Your task to perform on an android device: turn on data saver in the chrome app Image 0: 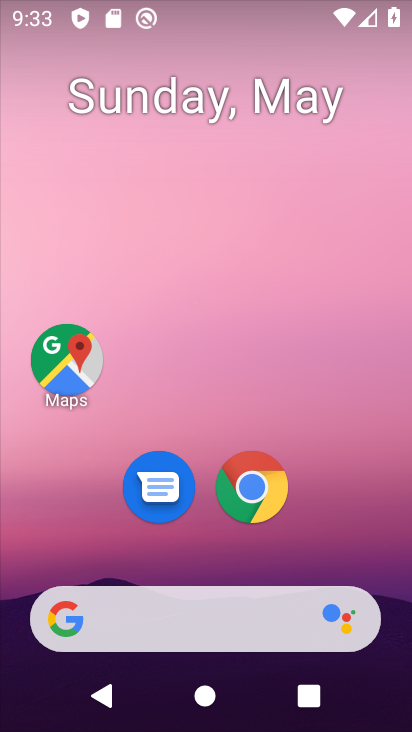
Step 0: drag from (394, 552) to (373, 121)
Your task to perform on an android device: turn on data saver in the chrome app Image 1: 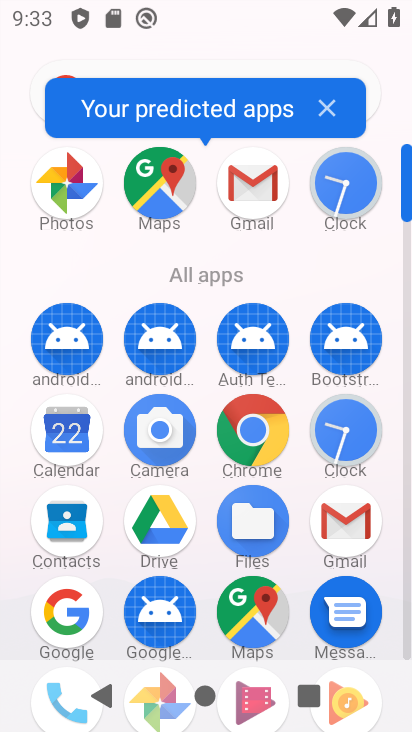
Step 1: click (262, 447)
Your task to perform on an android device: turn on data saver in the chrome app Image 2: 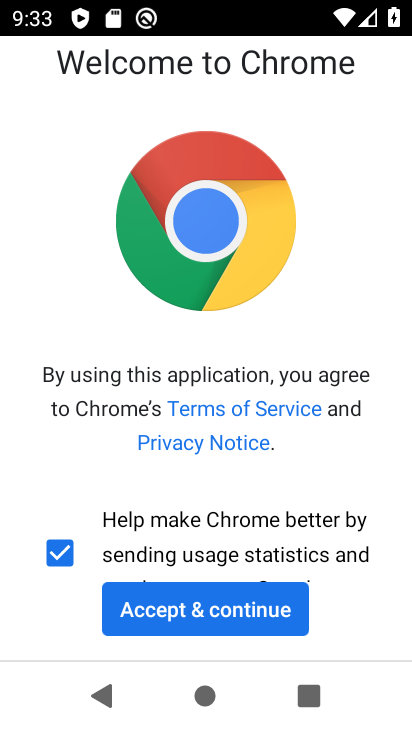
Step 2: click (245, 620)
Your task to perform on an android device: turn on data saver in the chrome app Image 3: 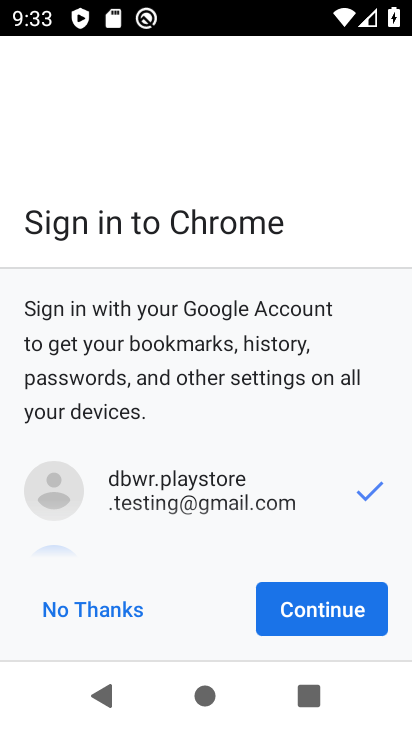
Step 3: click (321, 603)
Your task to perform on an android device: turn on data saver in the chrome app Image 4: 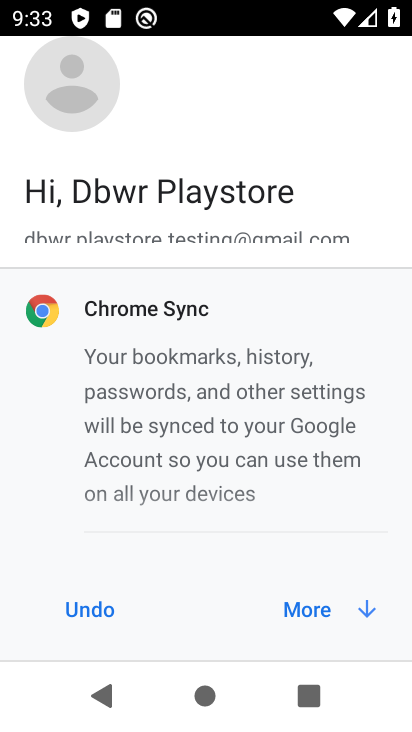
Step 4: click (321, 603)
Your task to perform on an android device: turn on data saver in the chrome app Image 5: 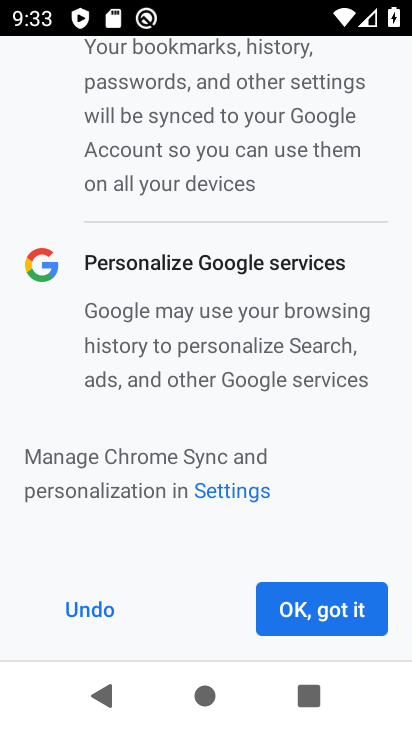
Step 5: click (313, 616)
Your task to perform on an android device: turn on data saver in the chrome app Image 6: 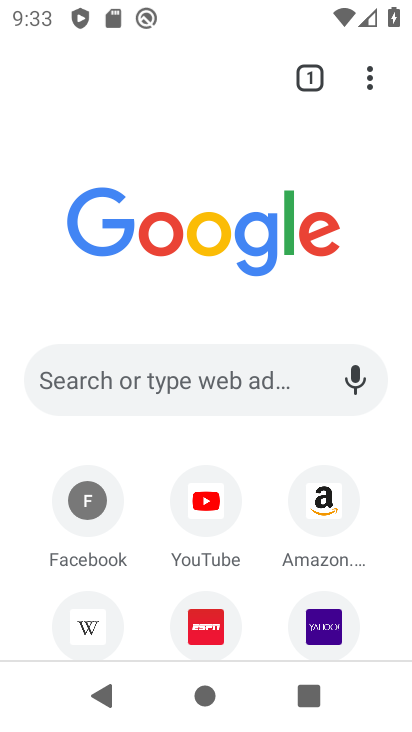
Step 6: click (371, 92)
Your task to perform on an android device: turn on data saver in the chrome app Image 7: 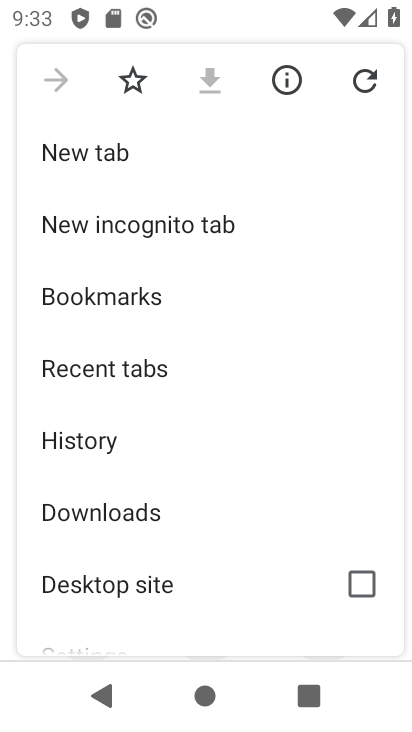
Step 7: drag from (265, 447) to (264, 375)
Your task to perform on an android device: turn on data saver in the chrome app Image 8: 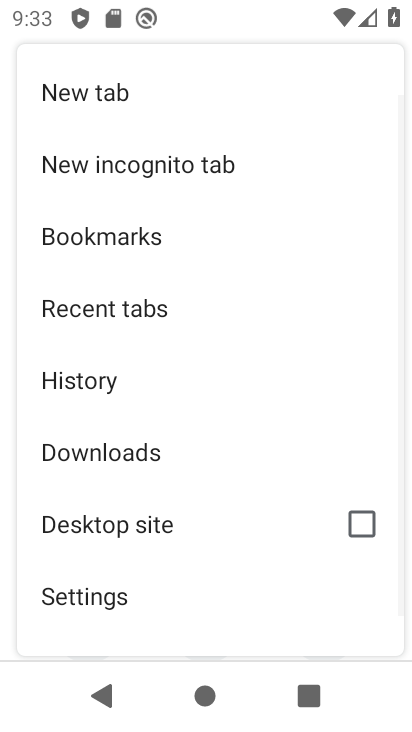
Step 8: drag from (284, 523) to (273, 402)
Your task to perform on an android device: turn on data saver in the chrome app Image 9: 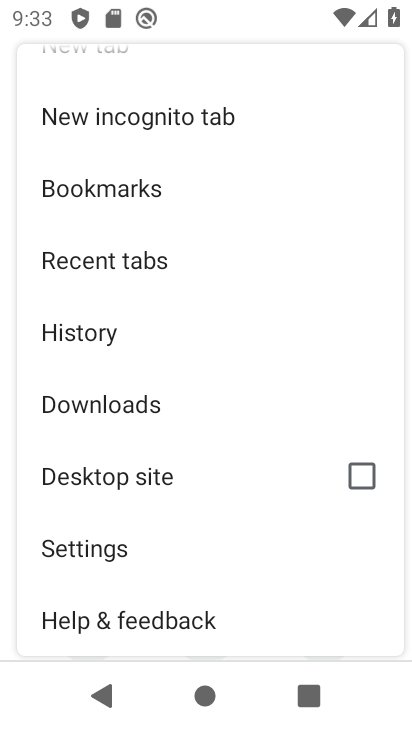
Step 9: click (186, 555)
Your task to perform on an android device: turn on data saver in the chrome app Image 10: 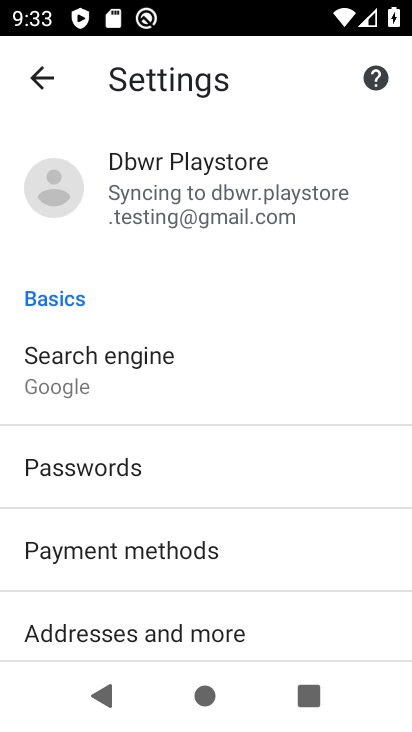
Step 10: drag from (257, 596) to (273, 494)
Your task to perform on an android device: turn on data saver in the chrome app Image 11: 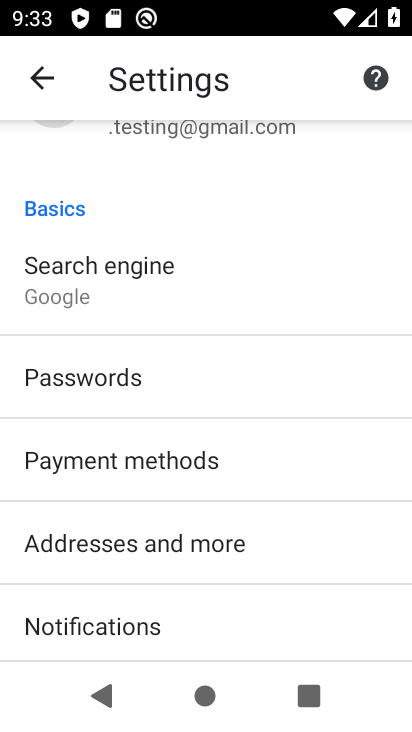
Step 11: drag from (277, 594) to (281, 499)
Your task to perform on an android device: turn on data saver in the chrome app Image 12: 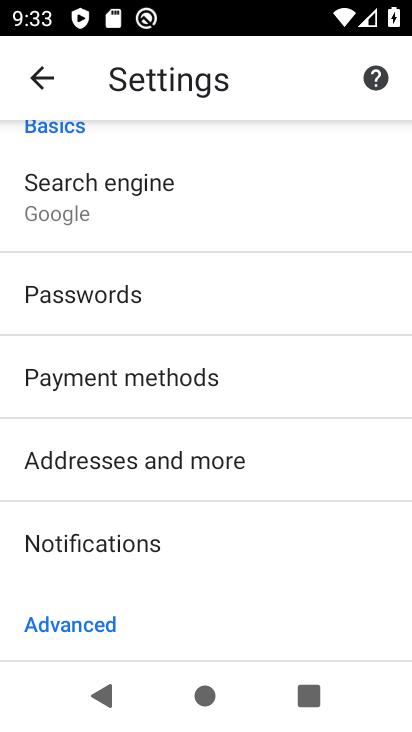
Step 12: drag from (296, 577) to (299, 447)
Your task to perform on an android device: turn on data saver in the chrome app Image 13: 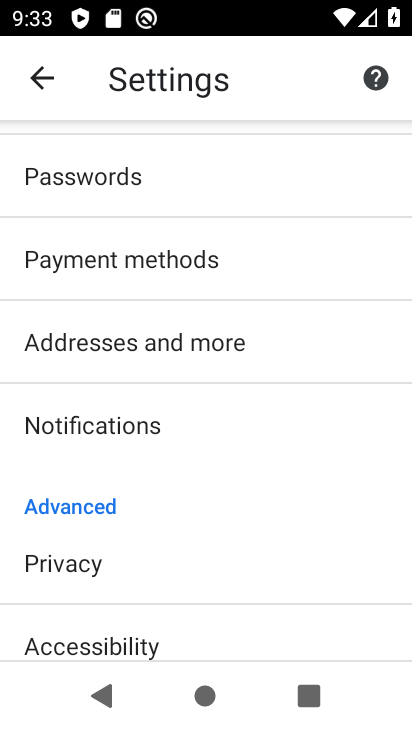
Step 13: drag from (298, 591) to (298, 525)
Your task to perform on an android device: turn on data saver in the chrome app Image 14: 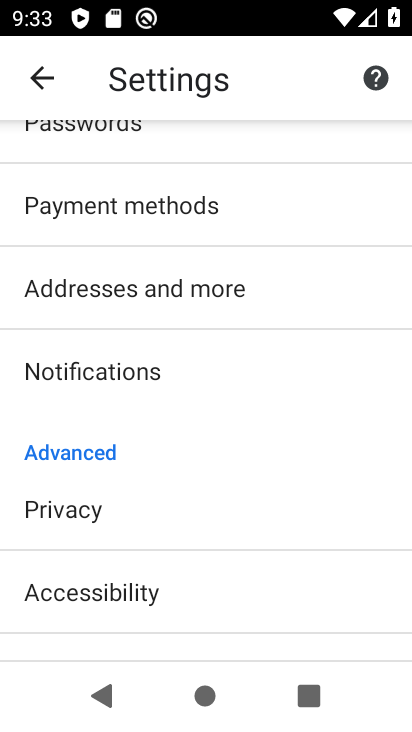
Step 14: drag from (301, 595) to (302, 526)
Your task to perform on an android device: turn on data saver in the chrome app Image 15: 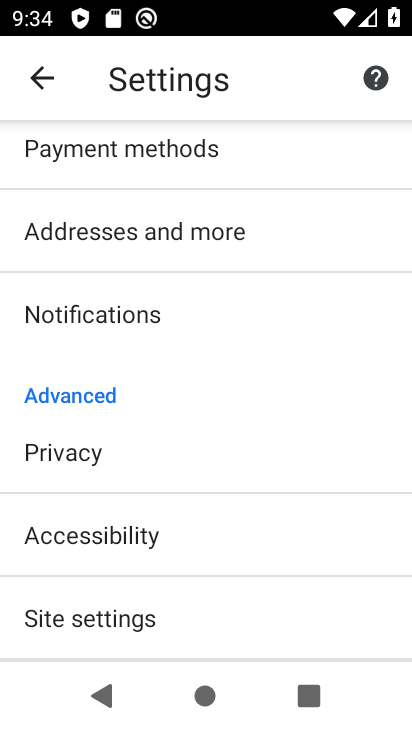
Step 15: drag from (297, 585) to (298, 516)
Your task to perform on an android device: turn on data saver in the chrome app Image 16: 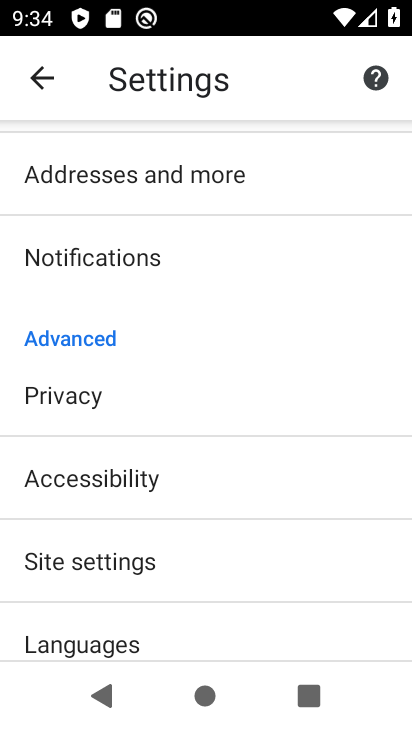
Step 16: drag from (300, 583) to (302, 519)
Your task to perform on an android device: turn on data saver in the chrome app Image 17: 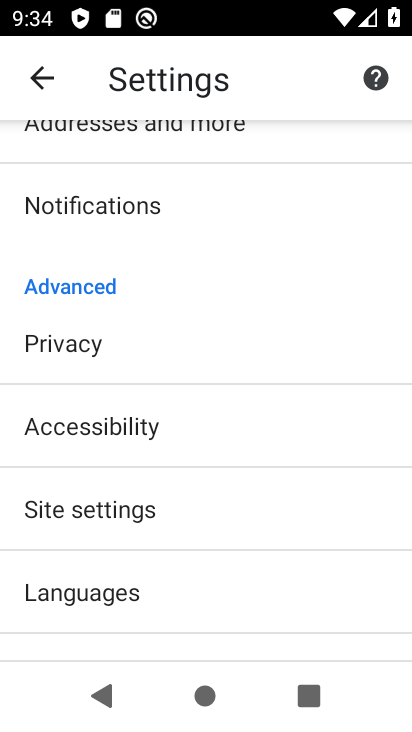
Step 17: drag from (305, 566) to (305, 482)
Your task to perform on an android device: turn on data saver in the chrome app Image 18: 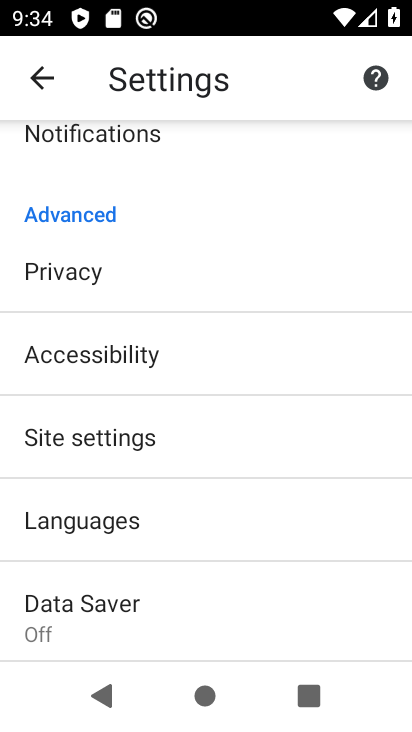
Step 18: drag from (315, 550) to (316, 472)
Your task to perform on an android device: turn on data saver in the chrome app Image 19: 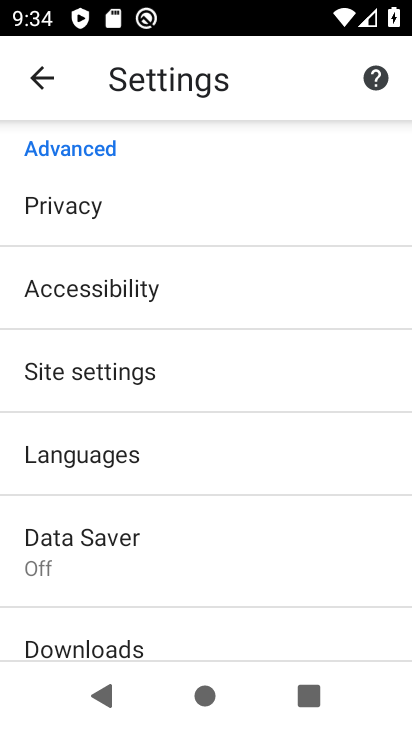
Step 19: drag from (314, 571) to (322, 498)
Your task to perform on an android device: turn on data saver in the chrome app Image 20: 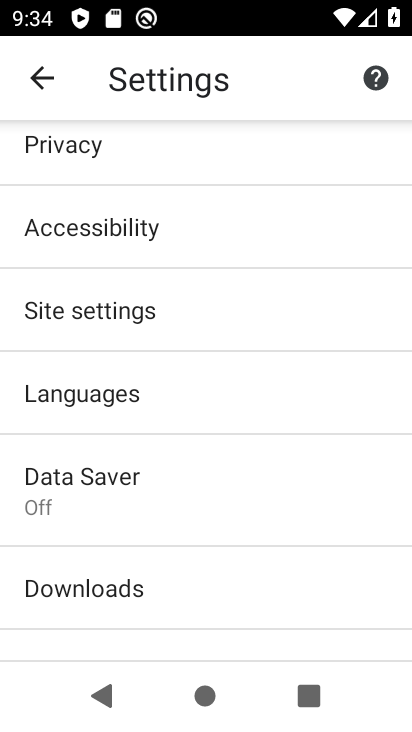
Step 20: click (240, 499)
Your task to perform on an android device: turn on data saver in the chrome app Image 21: 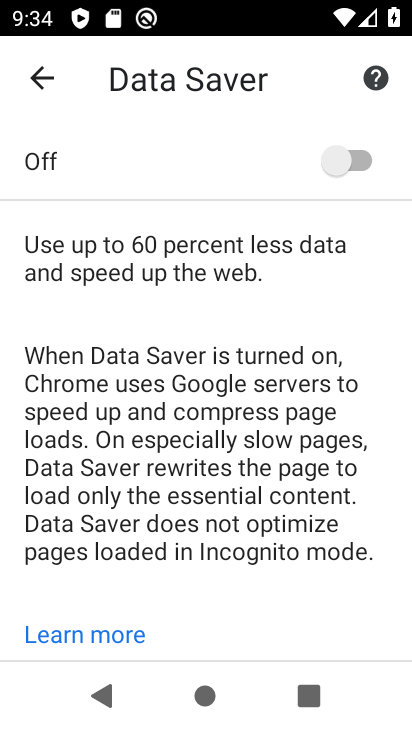
Step 21: click (358, 152)
Your task to perform on an android device: turn on data saver in the chrome app Image 22: 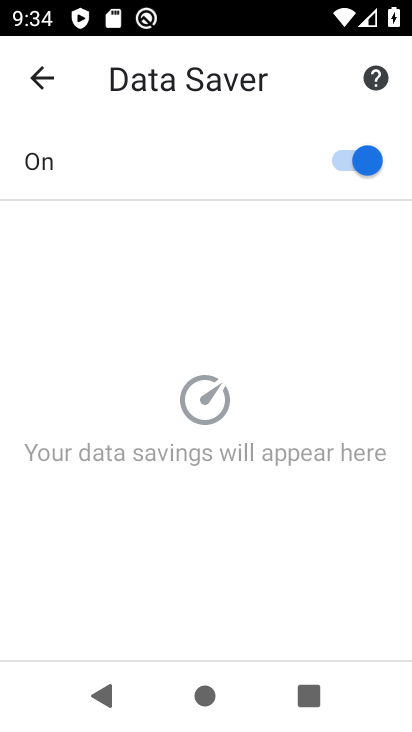
Step 22: task complete